Your task to perform on an android device: Open Chrome and go to the settings page Image 0: 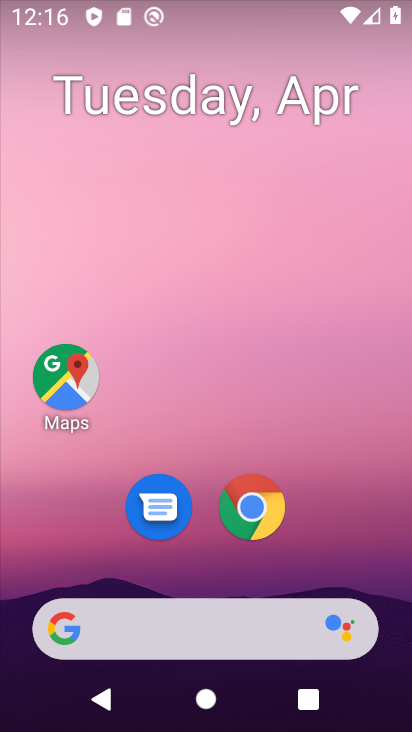
Step 0: click (263, 521)
Your task to perform on an android device: Open Chrome and go to the settings page Image 1: 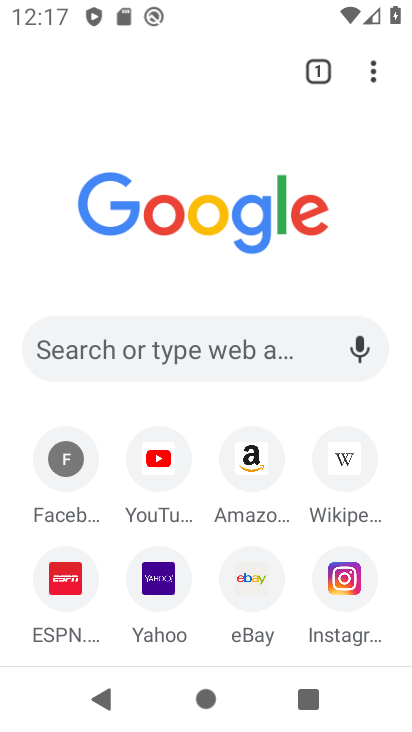
Step 1: click (371, 69)
Your task to perform on an android device: Open Chrome and go to the settings page Image 2: 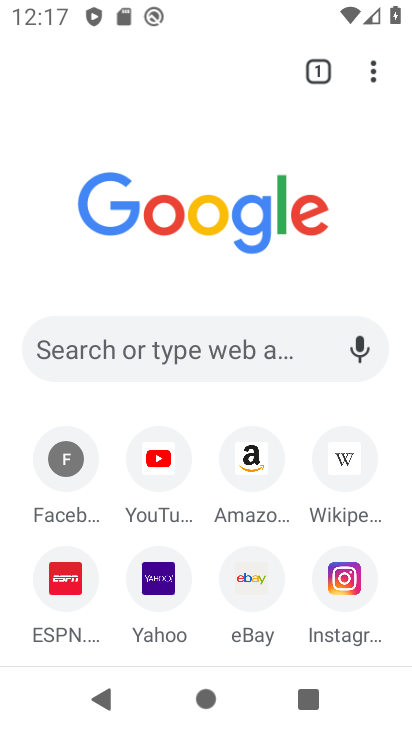
Step 2: click (368, 71)
Your task to perform on an android device: Open Chrome and go to the settings page Image 3: 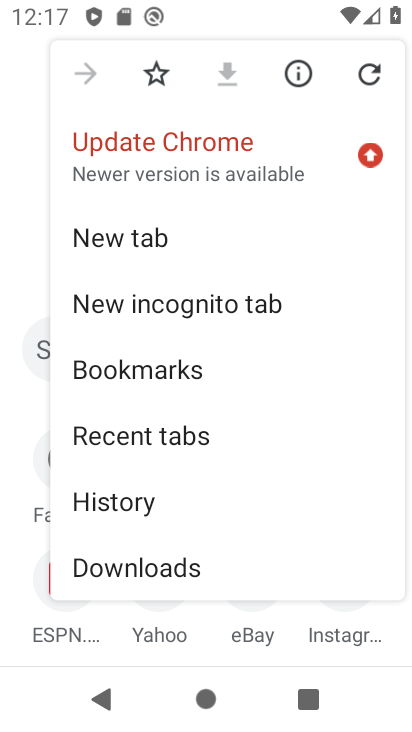
Step 3: drag from (221, 527) to (222, 159)
Your task to perform on an android device: Open Chrome and go to the settings page Image 4: 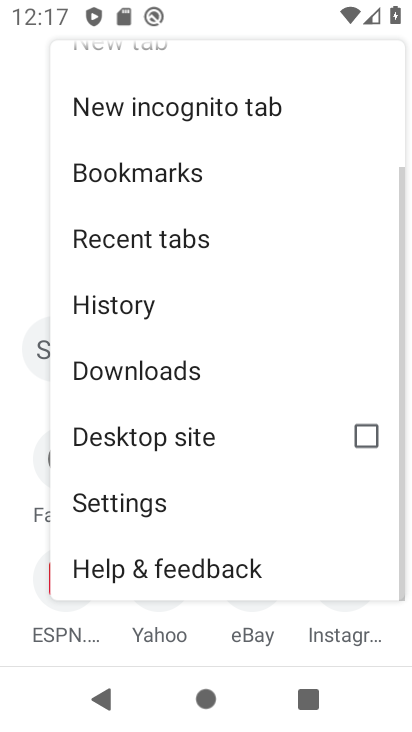
Step 4: click (193, 511)
Your task to perform on an android device: Open Chrome and go to the settings page Image 5: 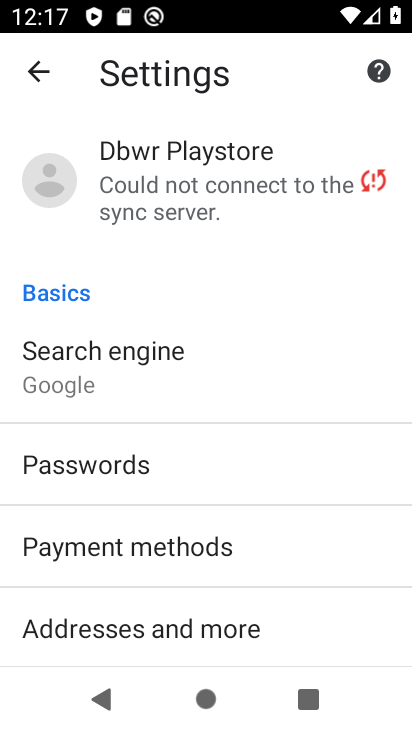
Step 5: task complete